Your task to perform on an android device: turn notification dots off Image 0: 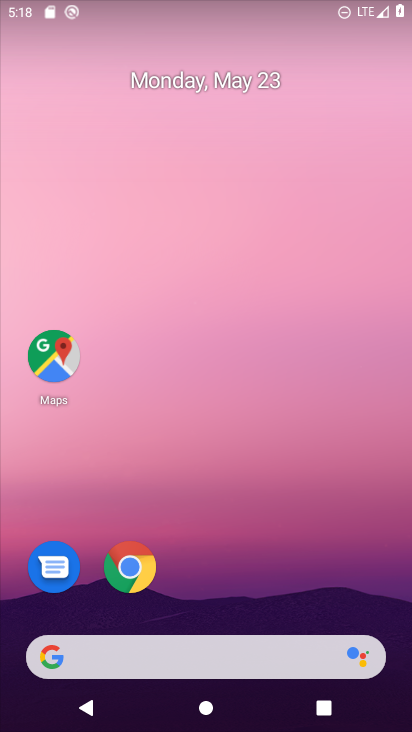
Step 0: drag from (288, 575) to (240, 84)
Your task to perform on an android device: turn notification dots off Image 1: 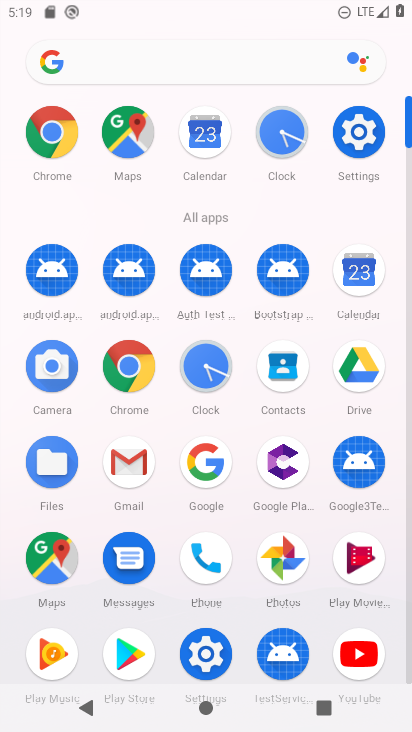
Step 1: click (357, 132)
Your task to perform on an android device: turn notification dots off Image 2: 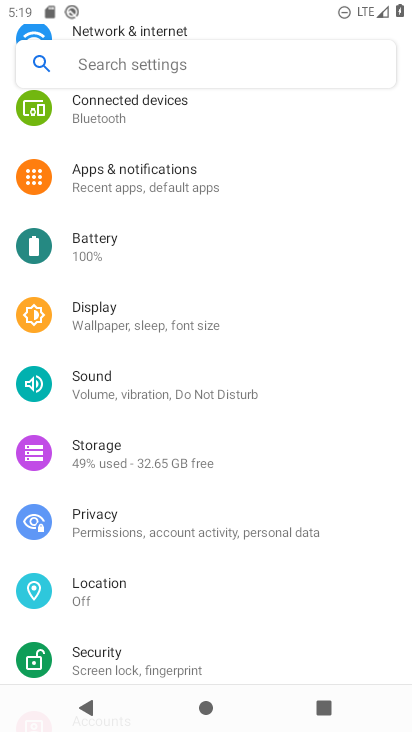
Step 2: click (148, 171)
Your task to perform on an android device: turn notification dots off Image 3: 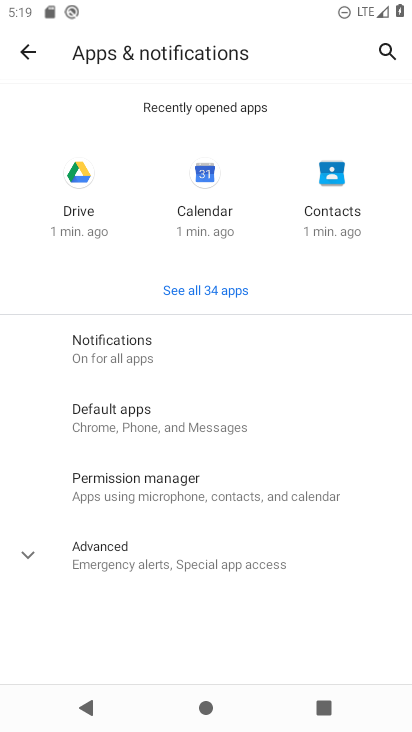
Step 3: click (113, 346)
Your task to perform on an android device: turn notification dots off Image 4: 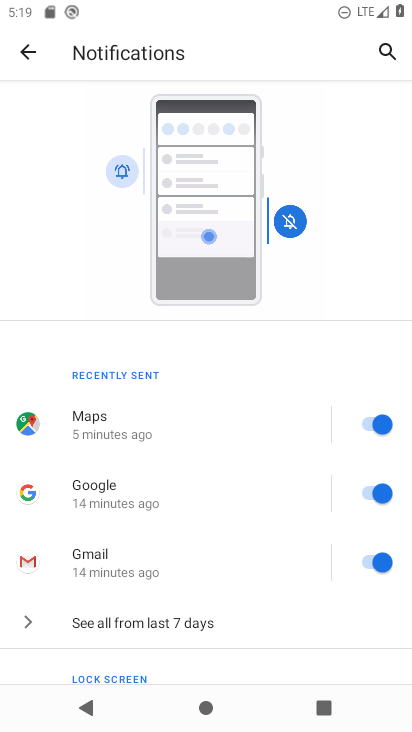
Step 4: drag from (178, 588) to (246, 433)
Your task to perform on an android device: turn notification dots off Image 5: 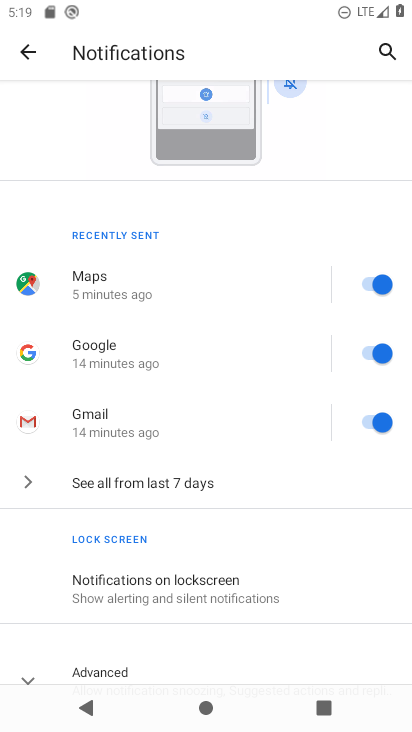
Step 5: drag from (192, 588) to (246, 467)
Your task to perform on an android device: turn notification dots off Image 6: 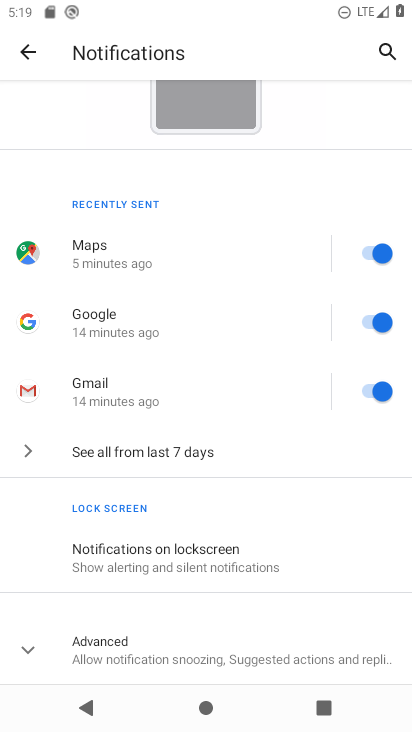
Step 6: click (206, 662)
Your task to perform on an android device: turn notification dots off Image 7: 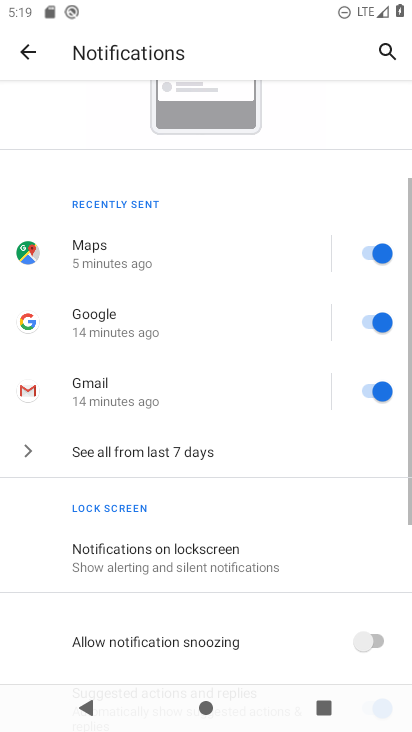
Step 7: drag from (223, 625) to (277, 465)
Your task to perform on an android device: turn notification dots off Image 8: 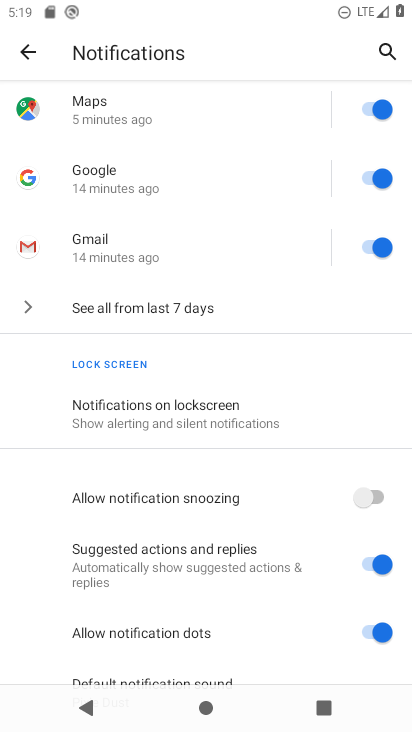
Step 8: drag from (305, 604) to (301, 483)
Your task to perform on an android device: turn notification dots off Image 9: 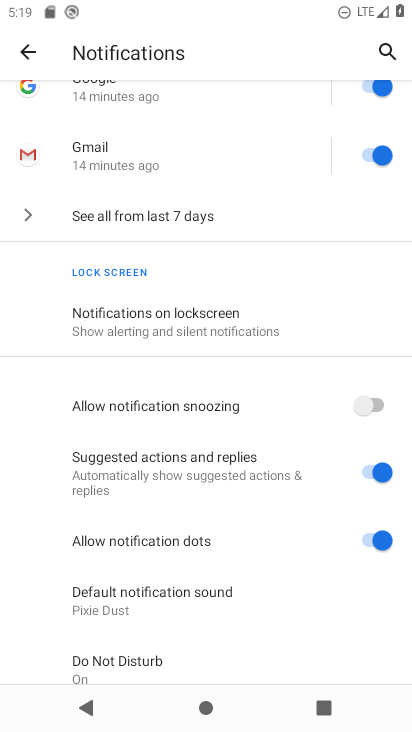
Step 9: click (360, 539)
Your task to perform on an android device: turn notification dots off Image 10: 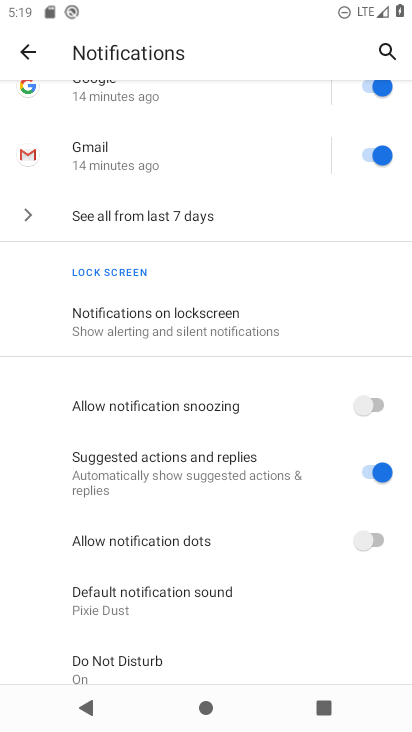
Step 10: task complete